Your task to perform on an android device: move an email to a new category in the gmail app Image 0: 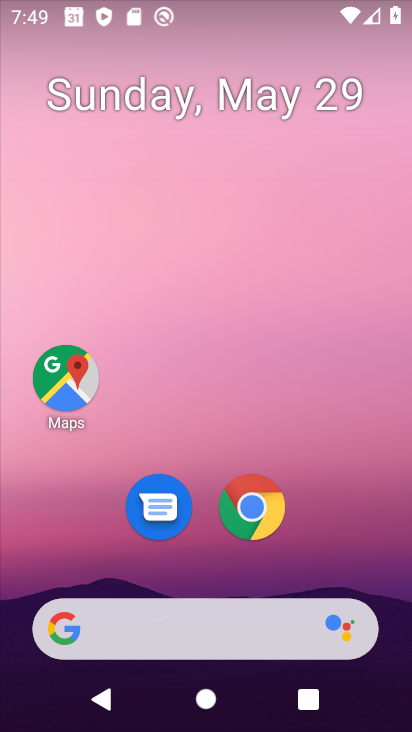
Step 0: drag from (351, 515) to (295, 178)
Your task to perform on an android device: move an email to a new category in the gmail app Image 1: 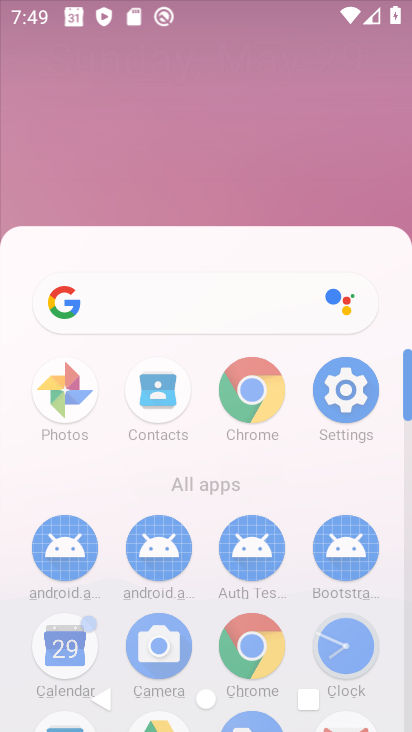
Step 1: click (295, 178)
Your task to perform on an android device: move an email to a new category in the gmail app Image 2: 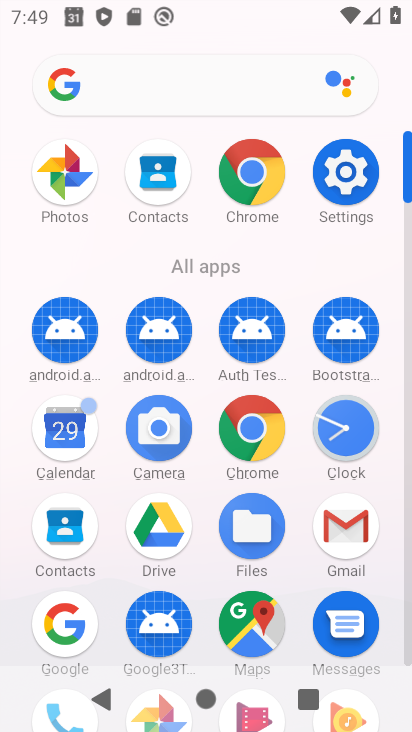
Step 2: click (367, 537)
Your task to perform on an android device: move an email to a new category in the gmail app Image 3: 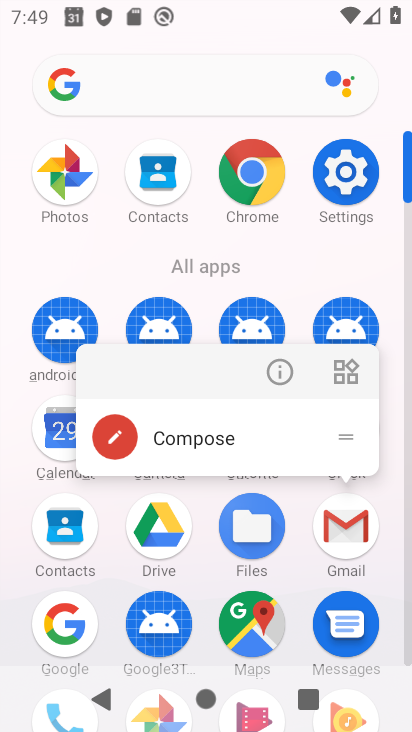
Step 3: click (347, 531)
Your task to perform on an android device: move an email to a new category in the gmail app Image 4: 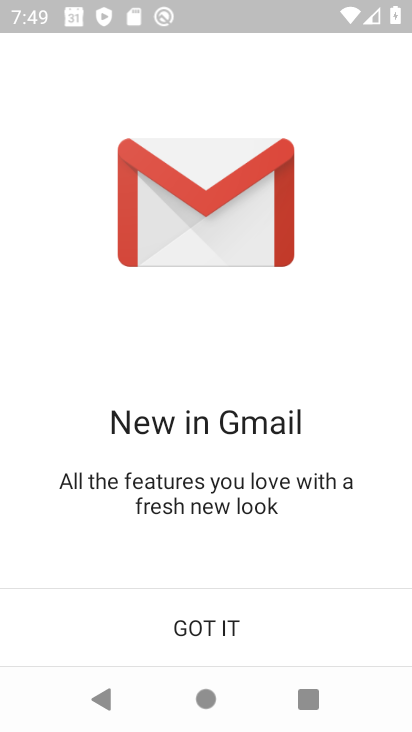
Step 4: click (283, 612)
Your task to perform on an android device: move an email to a new category in the gmail app Image 5: 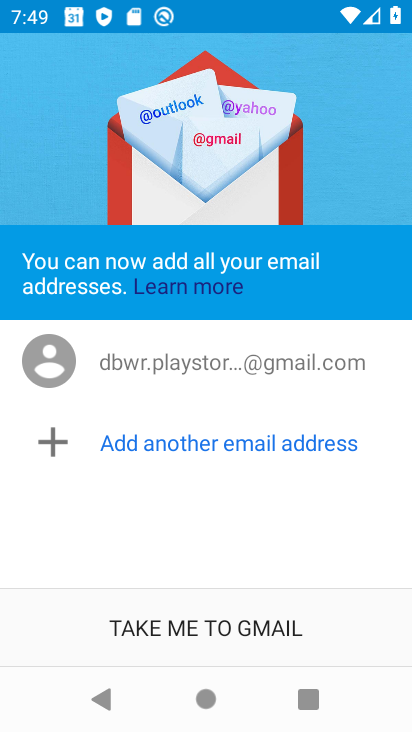
Step 5: click (281, 611)
Your task to perform on an android device: move an email to a new category in the gmail app Image 6: 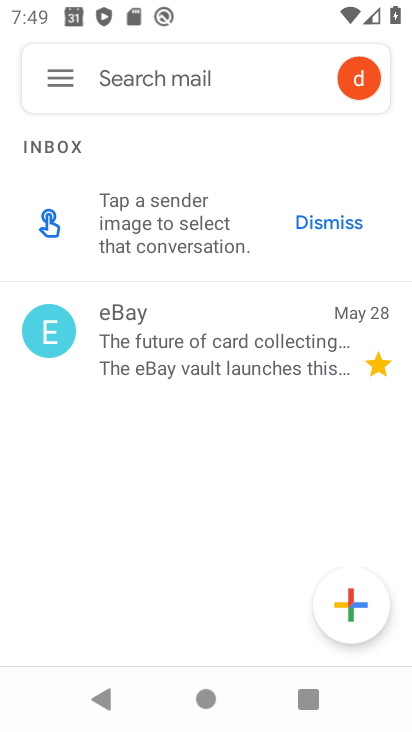
Step 6: click (53, 77)
Your task to perform on an android device: move an email to a new category in the gmail app Image 7: 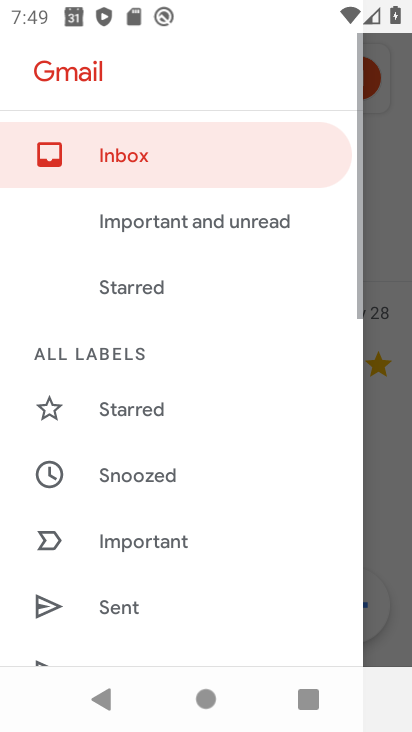
Step 7: drag from (175, 639) to (237, 335)
Your task to perform on an android device: move an email to a new category in the gmail app Image 8: 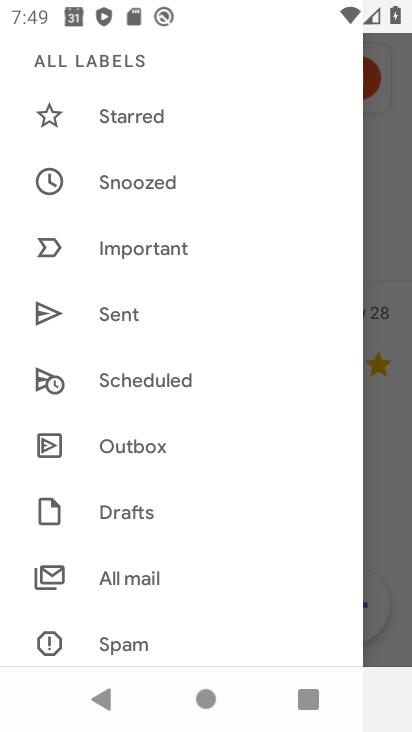
Step 8: click (397, 506)
Your task to perform on an android device: move an email to a new category in the gmail app Image 9: 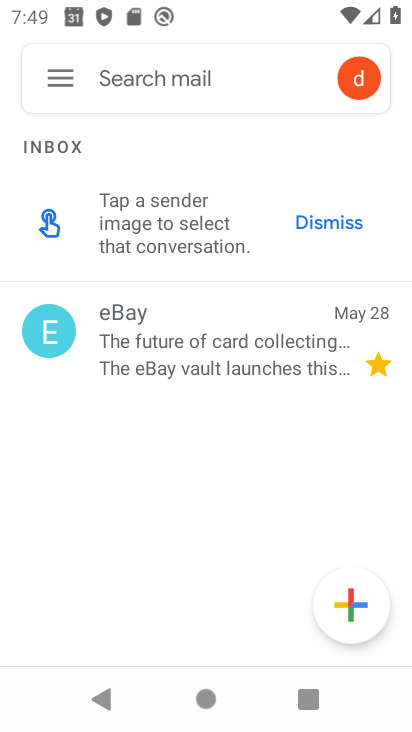
Step 9: click (225, 317)
Your task to perform on an android device: move an email to a new category in the gmail app Image 10: 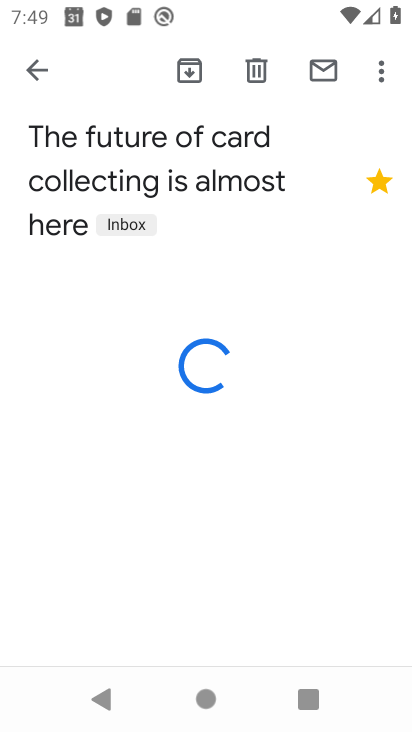
Step 10: click (382, 63)
Your task to perform on an android device: move an email to a new category in the gmail app Image 11: 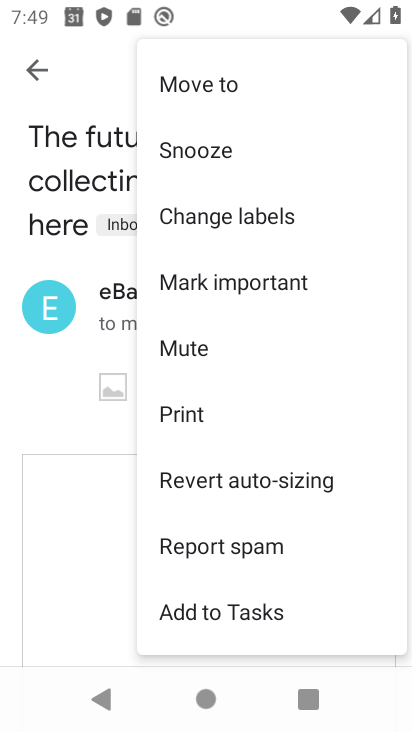
Step 11: drag from (271, 274) to (302, 396)
Your task to perform on an android device: move an email to a new category in the gmail app Image 12: 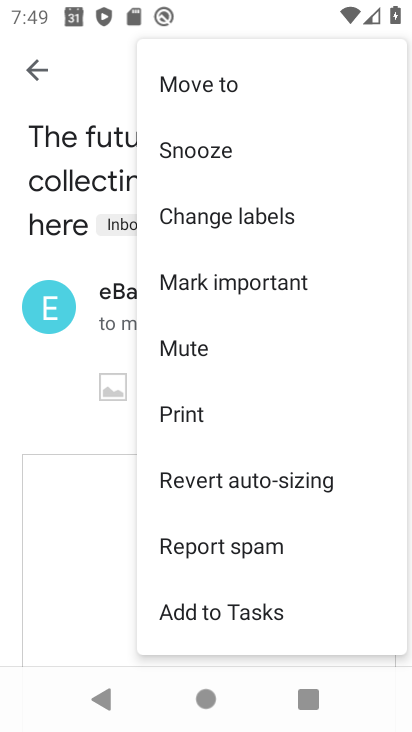
Step 12: click (214, 80)
Your task to perform on an android device: move an email to a new category in the gmail app Image 13: 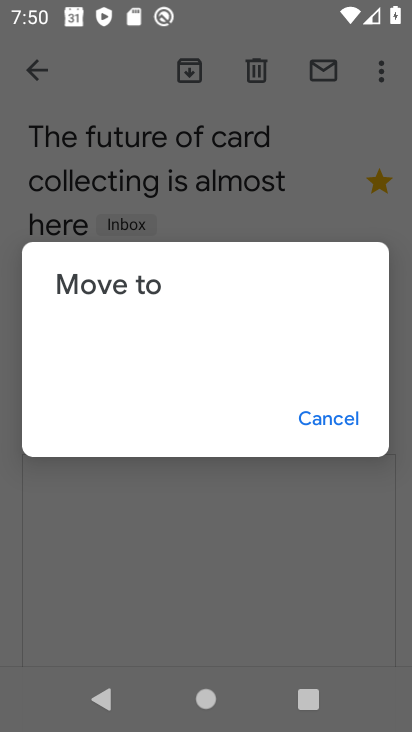
Step 13: click (227, 366)
Your task to perform on an android device: move an email to a new category in the gmail app Image 14: 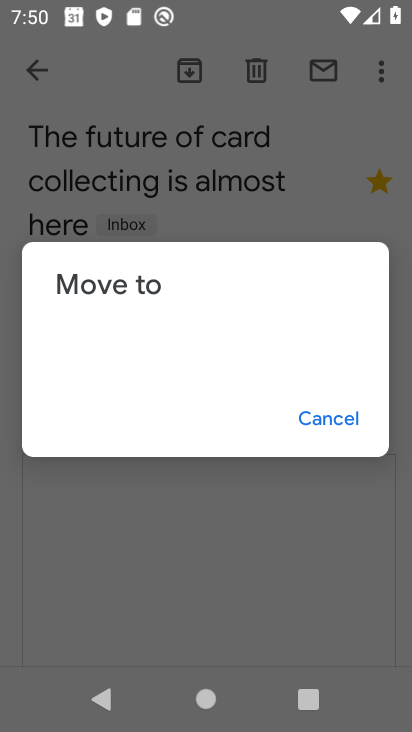
Step 14: click (338, 433)
Your task to perform on an android device: move an email to a new category in the gmail app Image 15: 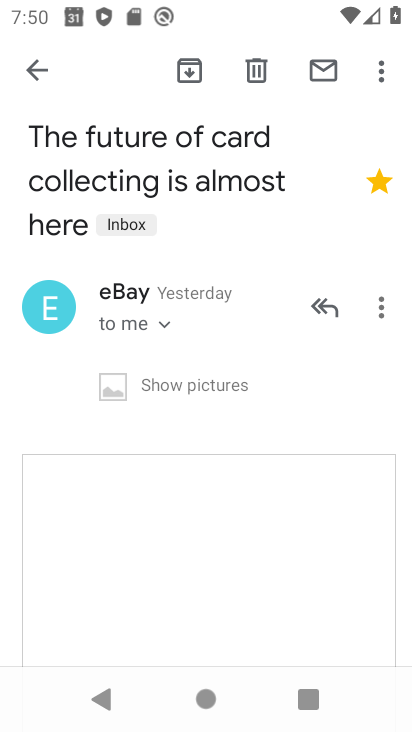
Step 15: task complete